Your task to perform on an android device: see sites visited before in the chrome app Image 0: 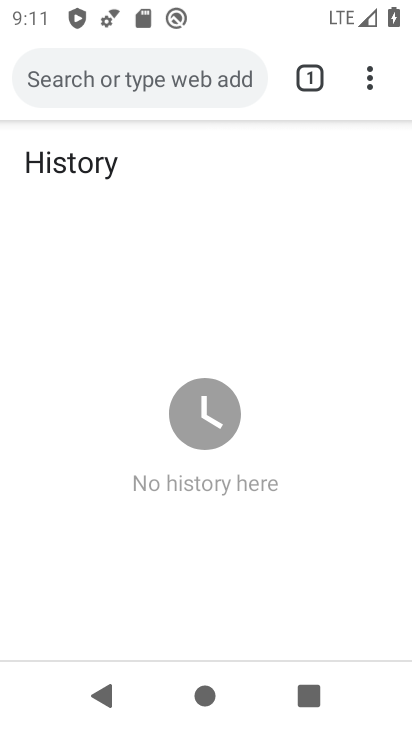
Step 0: press home button
Your task to perform on an android device: see sites visited before in the chrome app Image 1: 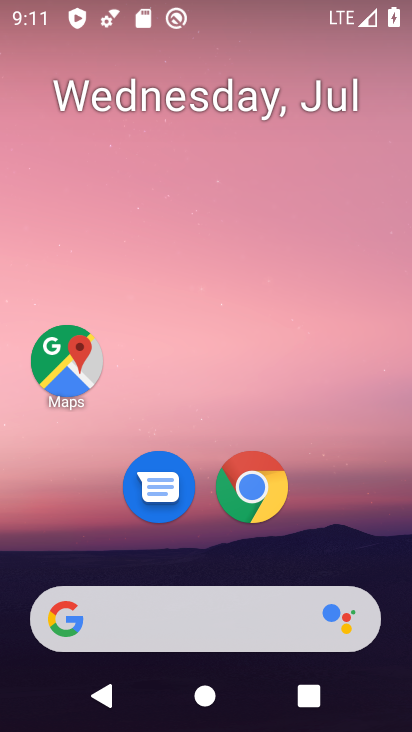
Step 1: click (266, 481)
Your task to perform on an android device: see sites visited before in the chrome app Image 2: 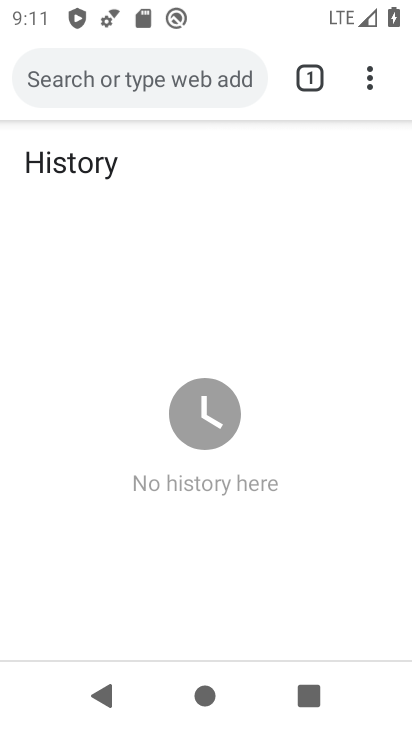
Step 2: click (309, 95)
Your task to perform on an android device: see sites visited before in the chrome app Image 3: 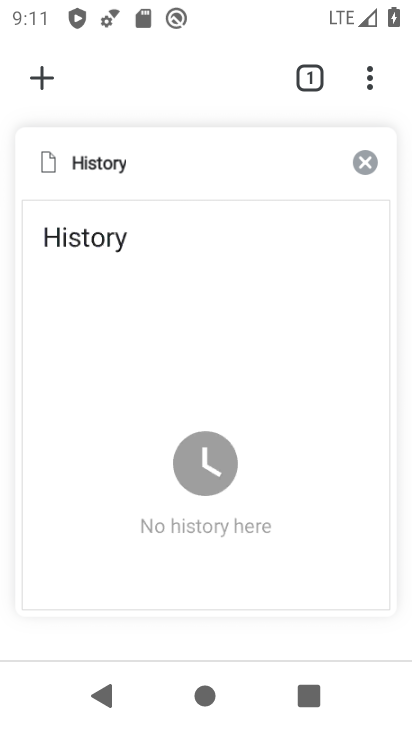
Step 3: drag from (309, 95) to (291, 451)
Your task to perform on an android device: see sites visited before in the chrome app Image 4: 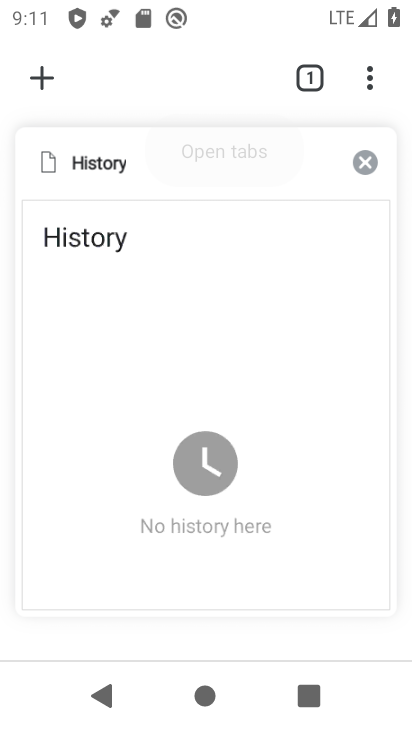
Step 4: drag from (241, 266) to (253, 514)
Your task to perform on an android device: see sites visited before in the chrome app Image 5: 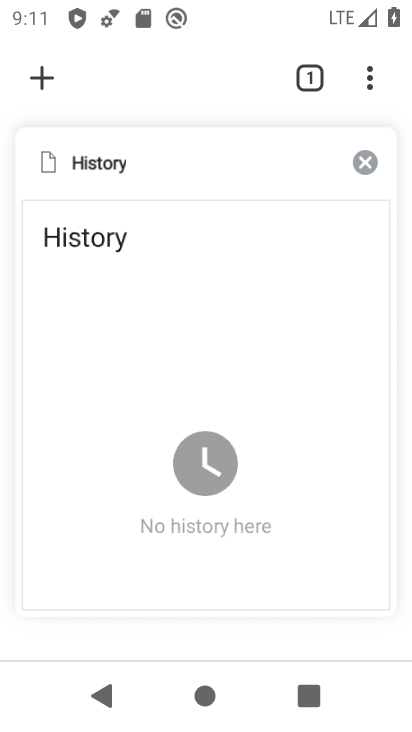
Step 5: click (371, 87)
Your task to perform on an android device: see sites visited before in the chrome app Image 6: 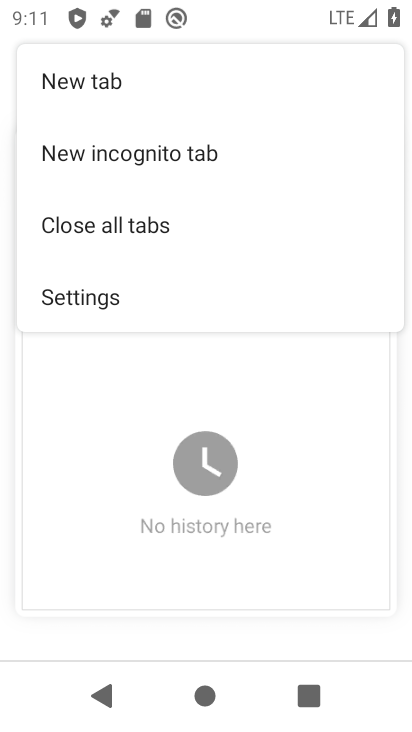
Step 6: click (70, 292)
Your task to perform on an android device: see sites visited before in the chrome app Image 7: 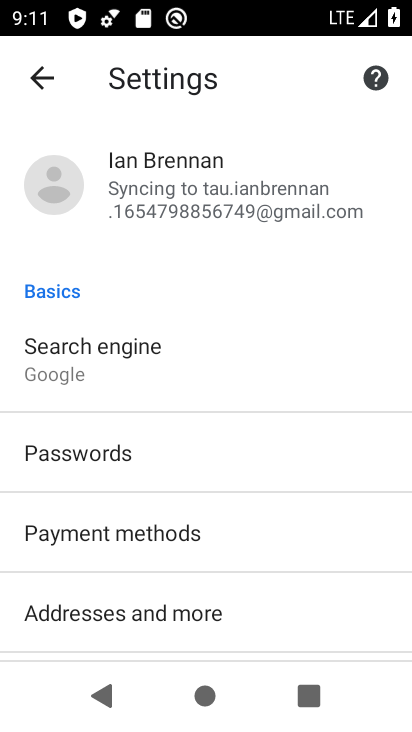
Step 7: task complete